Your task to perform on an android device: Go to sound settings Image 0: 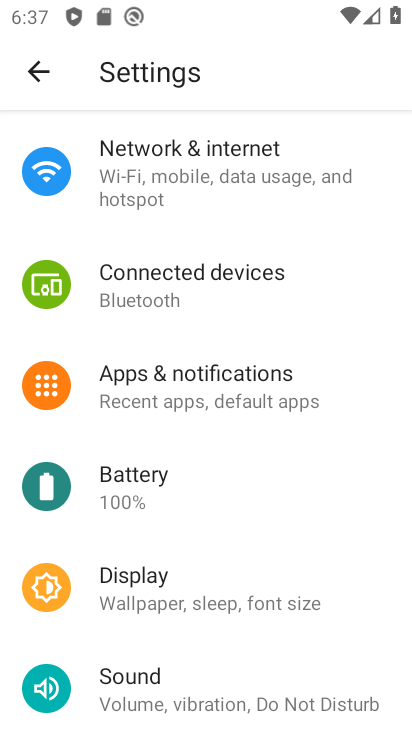
Step 0: press home button
Your task to perform on an android device: Go to sound settings Image 1: 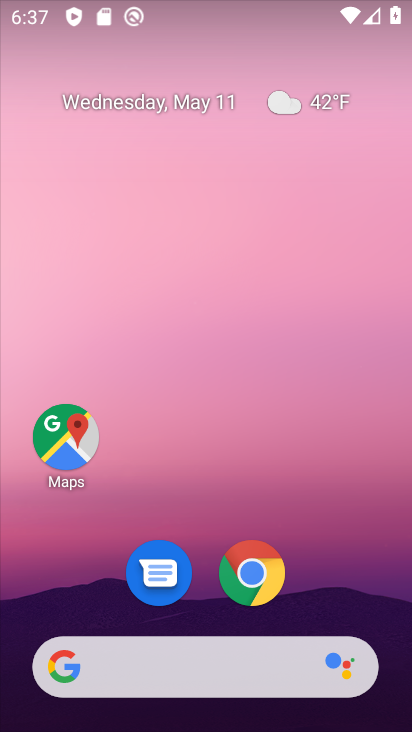
Step 1: drag from (347, 586) to (325, 152)
Your task to perform on an android device: Go to sound settings Image 2: 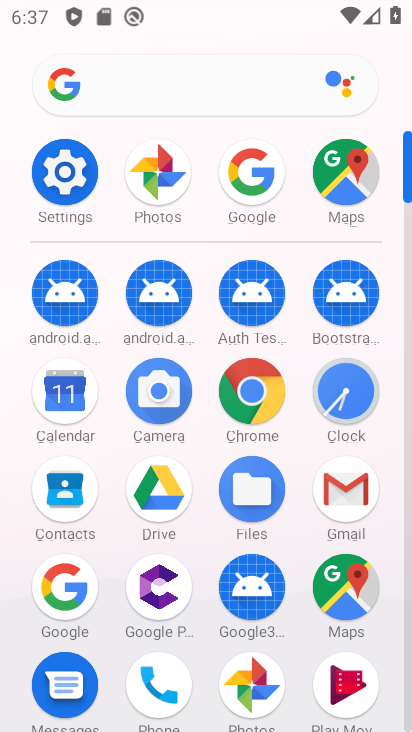
Step 2: click (62, 200)
Your task to perform on an android device: Go to sound settings Image 3: 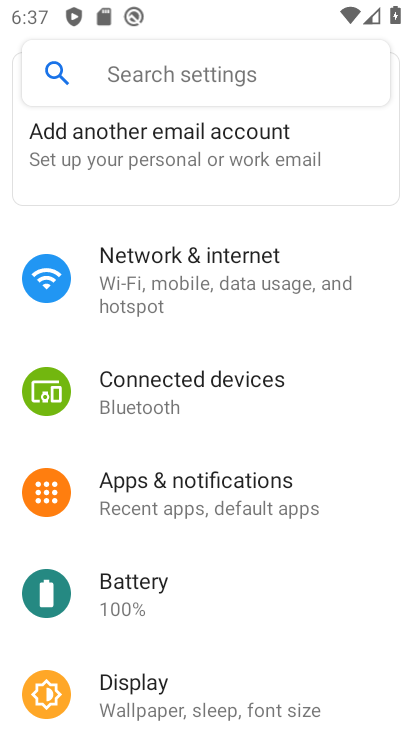
Step 3: drag from (159, 538) to (198, 399)
Your task to perform on an android device: Go to sound settings Image 4: 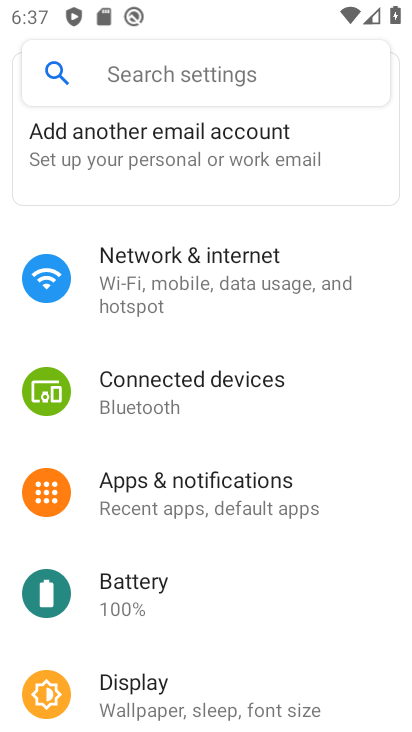
Step 4: drag from (244, 650) to (288, 340)
Your task to perform on an android device: Go to sound settings Image 5: 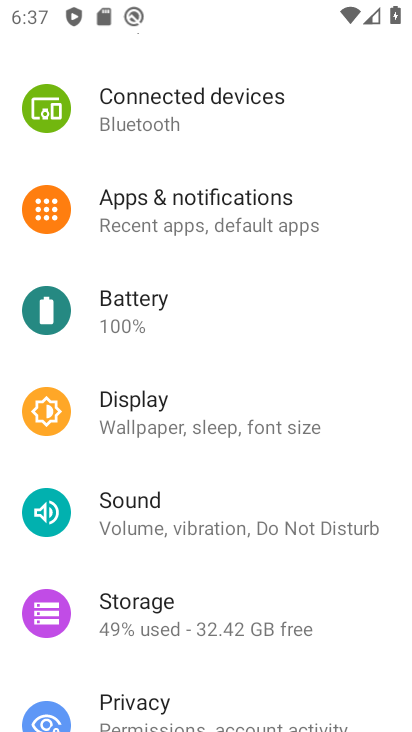
Step 5: click (145, 516)
Your task to perform on an android device: Go to sound settings Image 6: 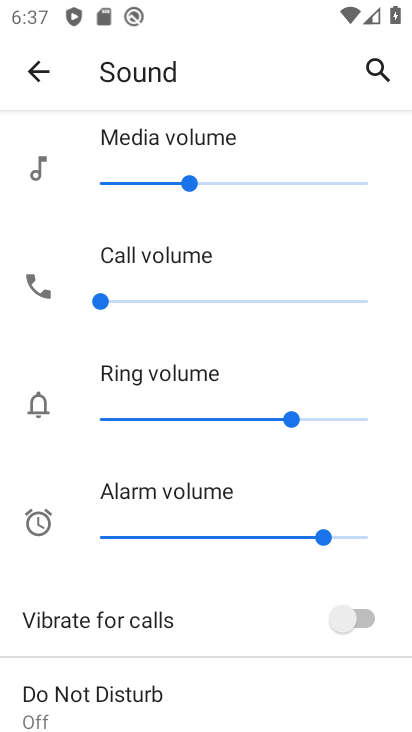
Step 6: task complete